Your task to perform on an android device: install app "HBO Max: Stream TV & Movies" Image 0: 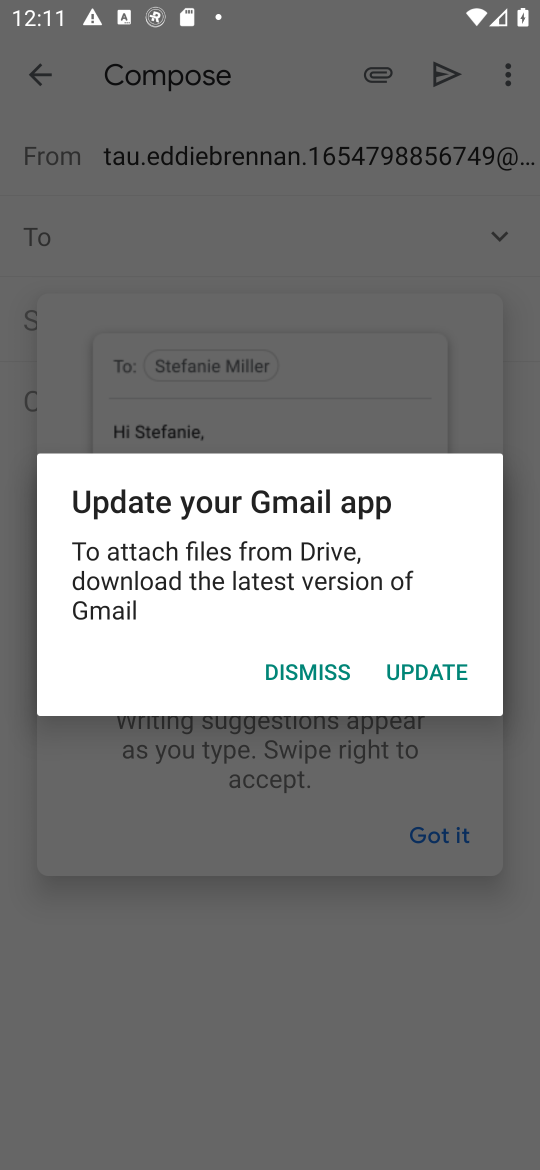
Step 0: press home button
Your task to perform on an android device: install app "HBO Max: Stream TV & Movies" Image 1: 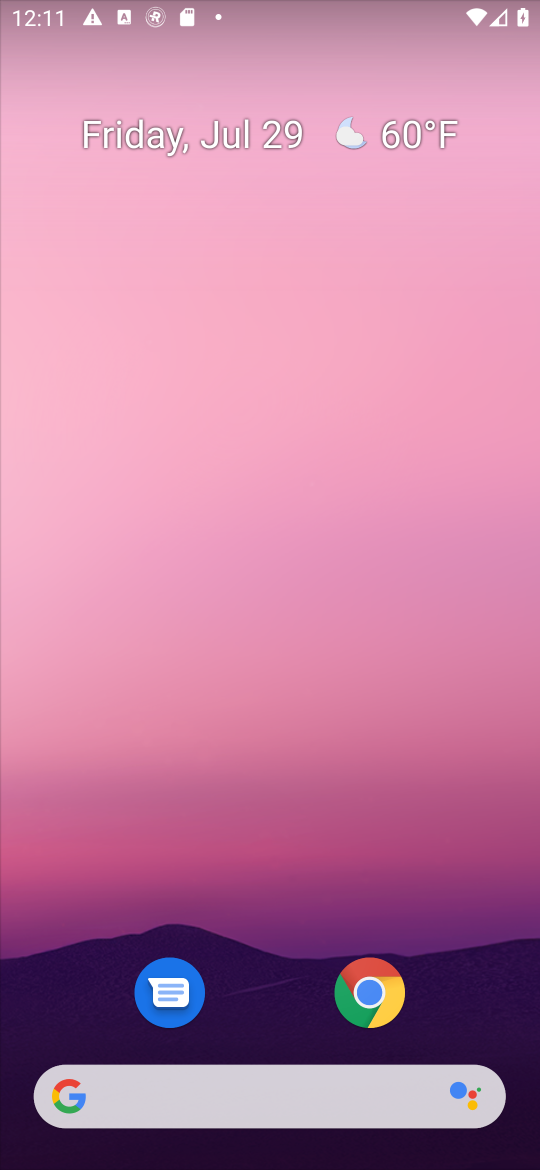
Step 1: drag from (220, 1106) to (245, 130)
Your task to perform on an android device: install app "HBO Max: Stream TV & Movies" Image 2: 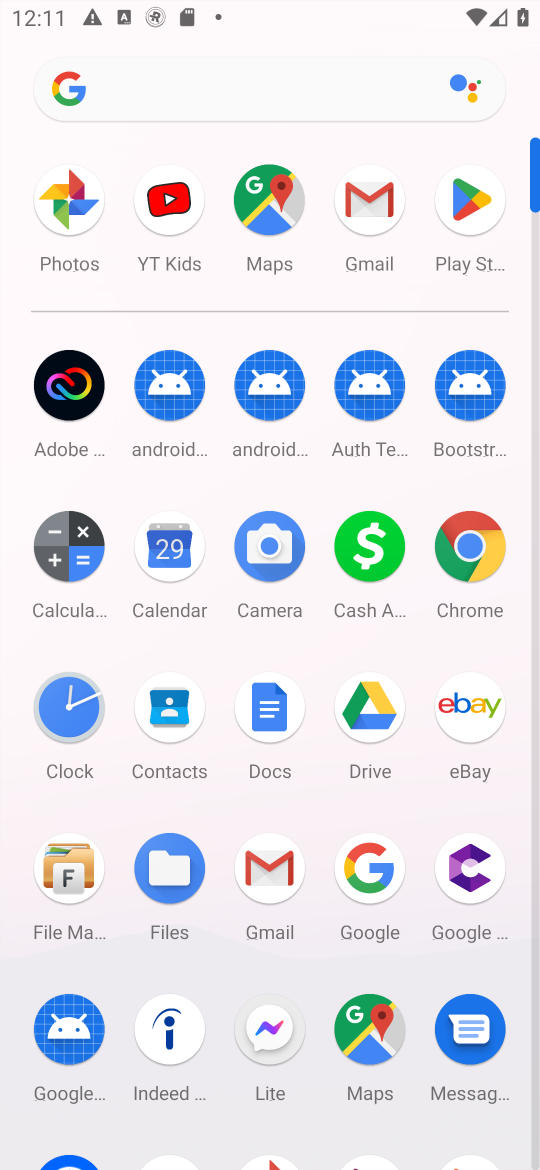
Step 2: click (469, 204)
Your task to perform on an android device: install app "HBO Max: Stream TV & Movies" Image 3: 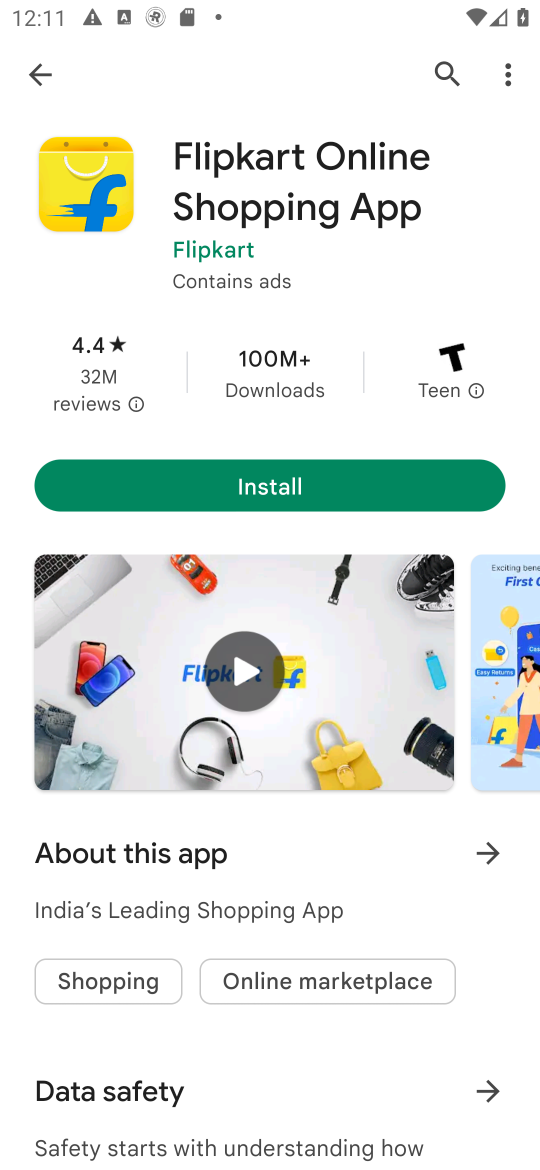
Step 3: click (458, 68)
Your task to perform on an android device: install app "HBO Max: Stream TV & Movies" Image 4: 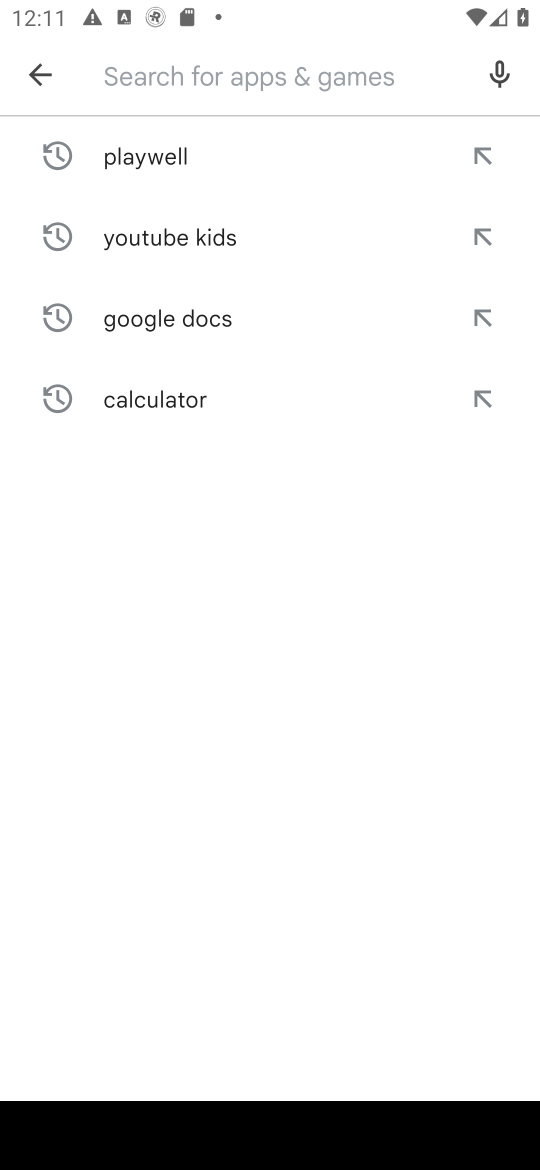
Step 4: click (170, 95)
Your task to perform on an android device: install app "HBO Max: Stream TV & Movies" Image 5: 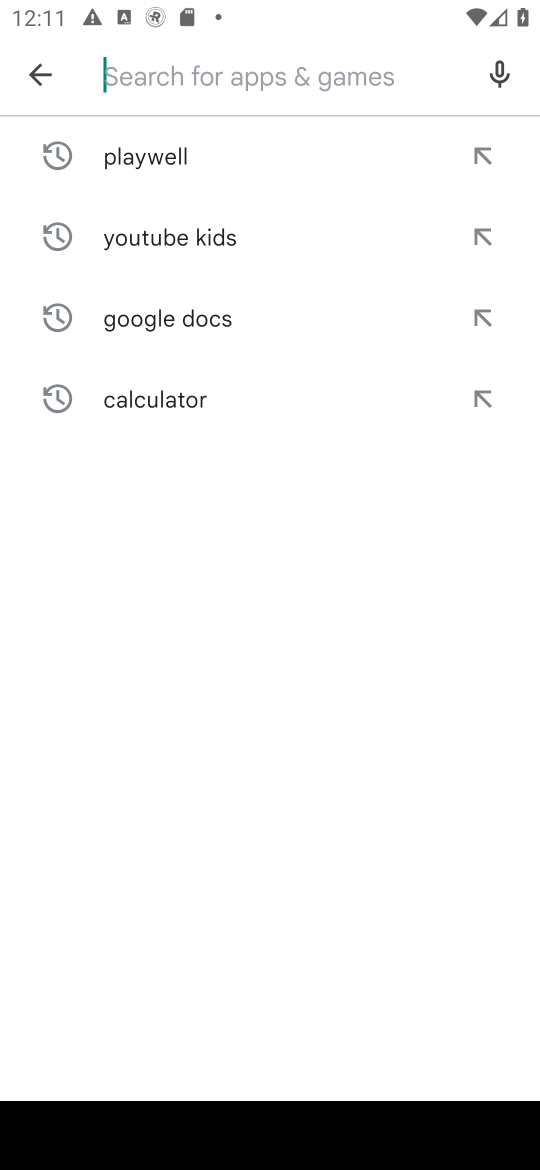
Step 5: type "HBO Max: Stream TV & Movies"
Your task to perform on an android device: install app "HBO Max: Stream TV & Movies" Image 6: 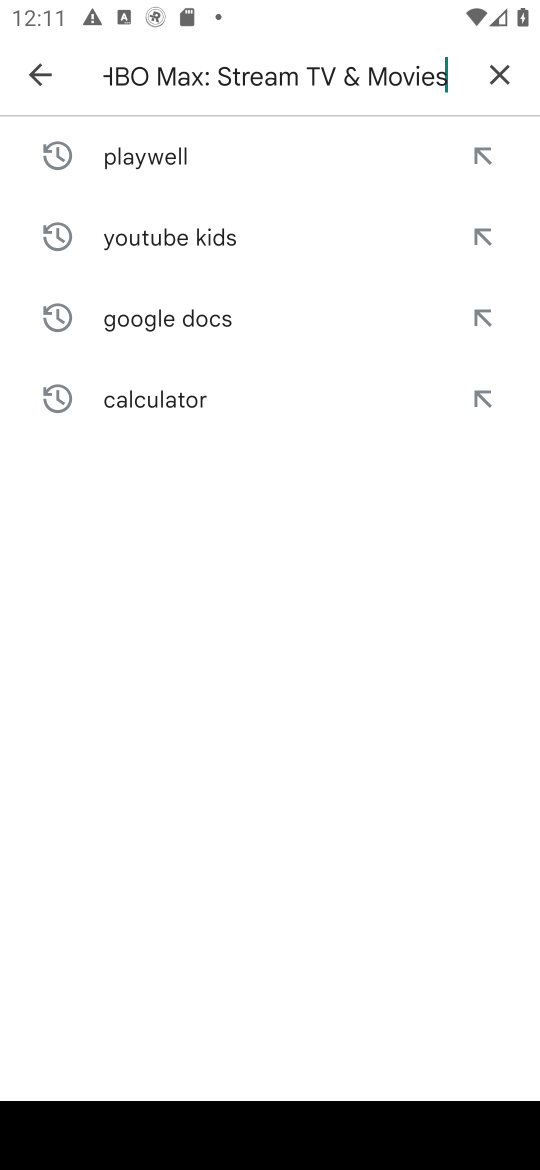
Step 6: type ""
Your task to perform on an android device: install app "HBO Max: Stream TV & Movies" Image 7: 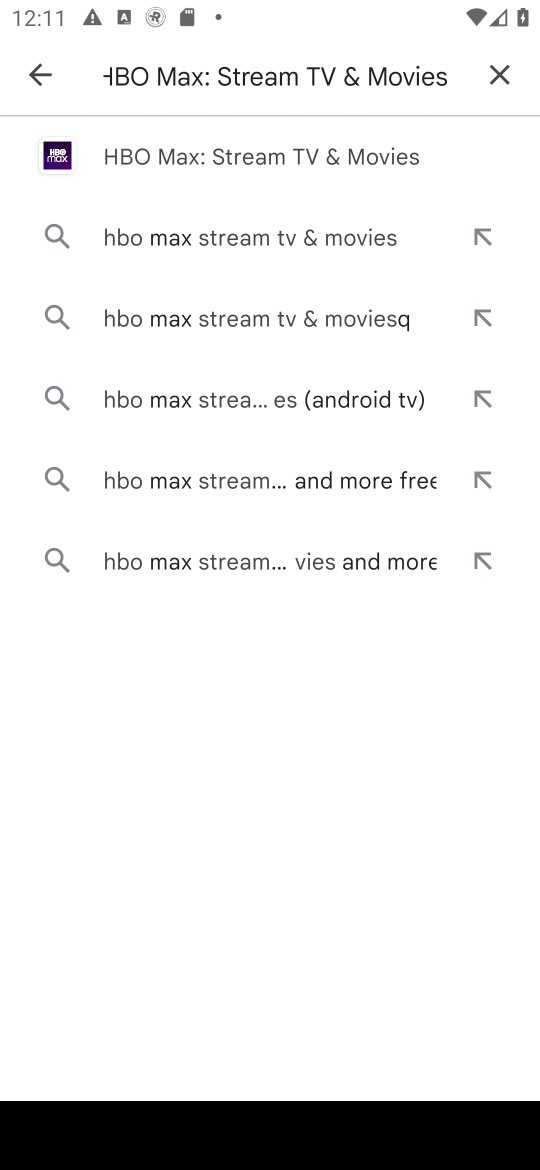
Step 7: click (248, 163)
Your task to perform on an android device: install app "HBO Max: Stream TV & Movies" Image 8: 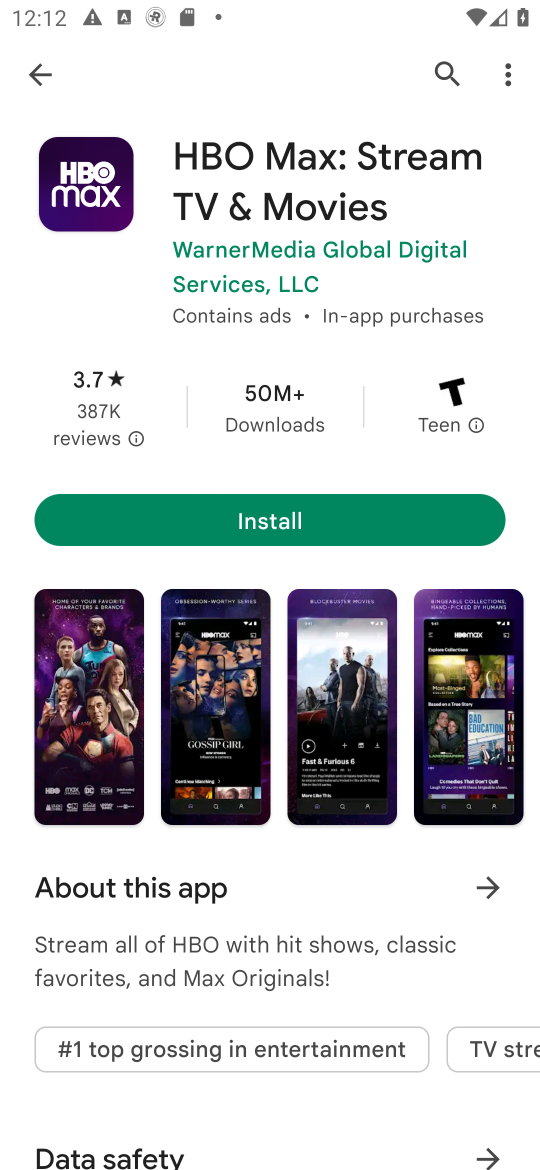
Step 8: click (291, 519)
Your task to perform on an android device: install app "HBO Max: Stream TV & Movies" Image 9: 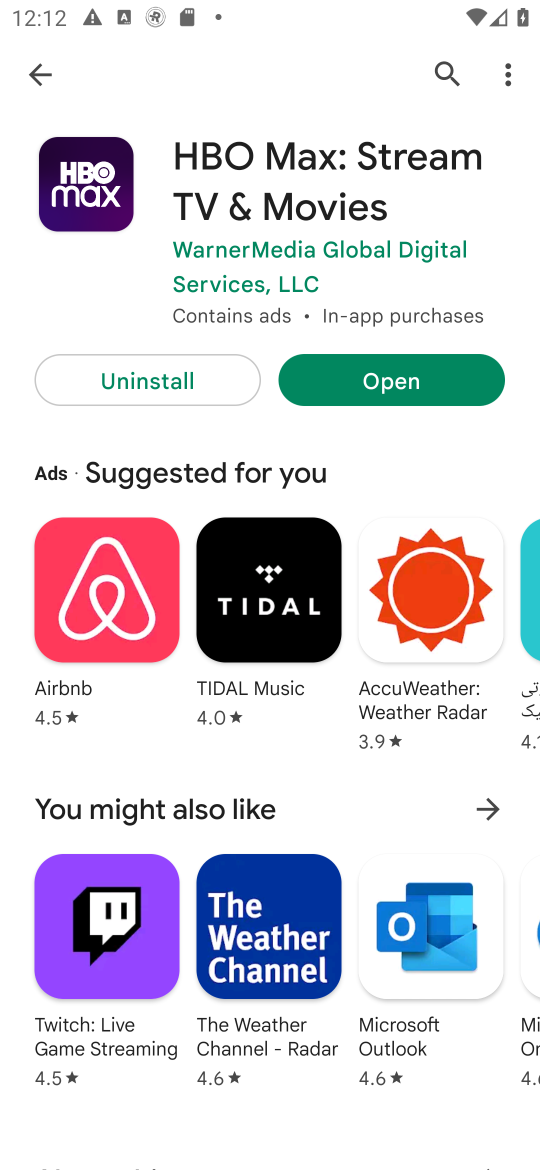
Step 9: task complete